Your task to perform on an android device: Open Google Image 0: 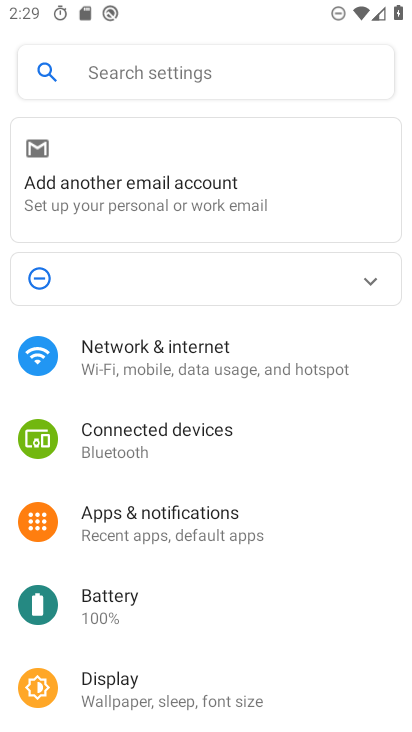
Step 0: press home button
Your task to perform on an android device: Open Google Image 1: 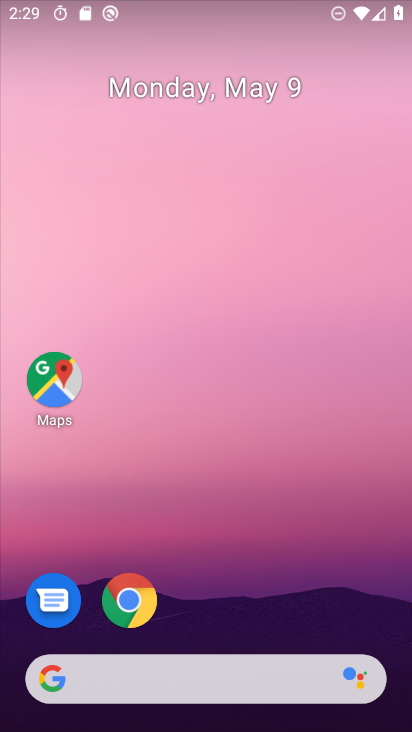
Step 1: click (49, 676)
Your task to perform on an android device: Open Google Image 2: 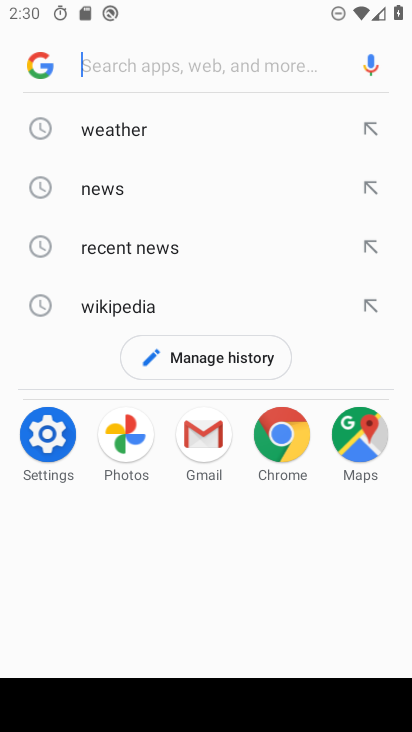
Step 2: click (40, 62)
Your task to perform on an android device: Open Google Image 3: 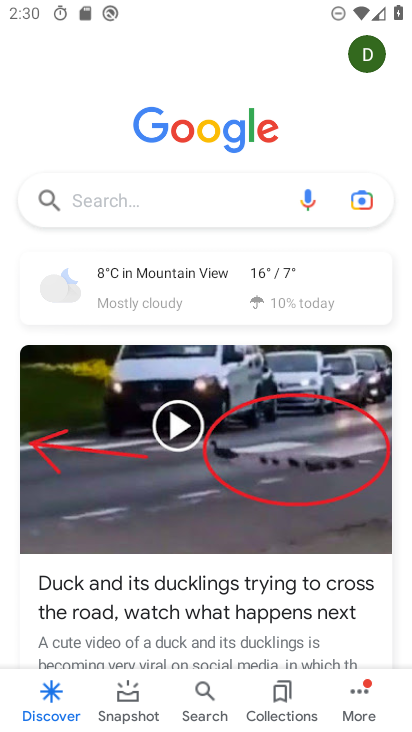
Step 3: task complete